Your task to perform on an android device: set default search engine in the chrome app Image 0: 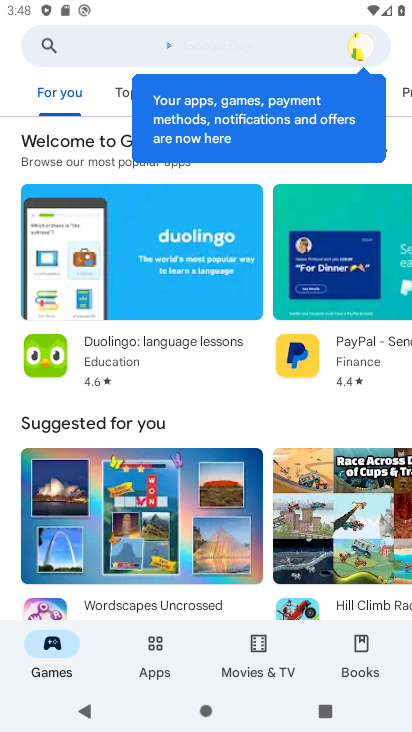
Step 0: press back button
Your task to perform on an android device: set default search engine in the chrome app Image 1: 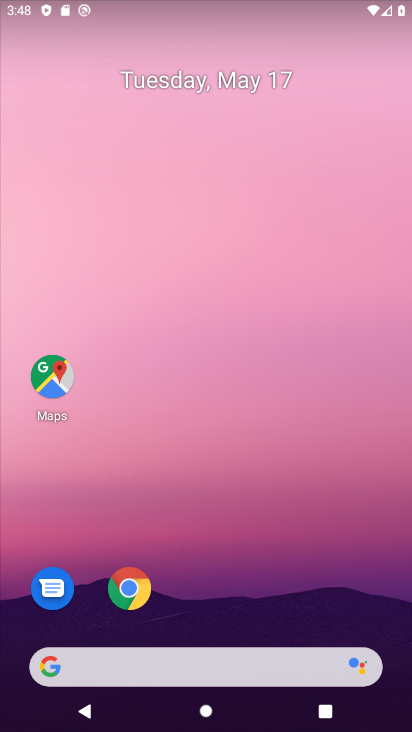
Step 1: click (126, 588)
Your task to perform on an android device: set default search engine in the chrome app Image 2: 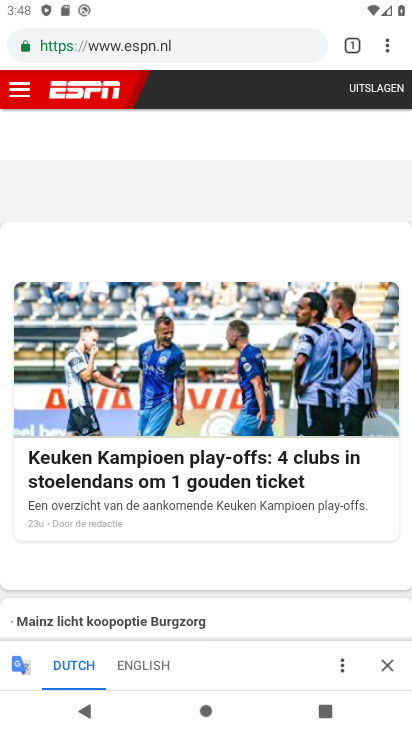
Step 2: click (389, 45)
Your task to perform on an android device: set default search engine in the chrome app Image 3: 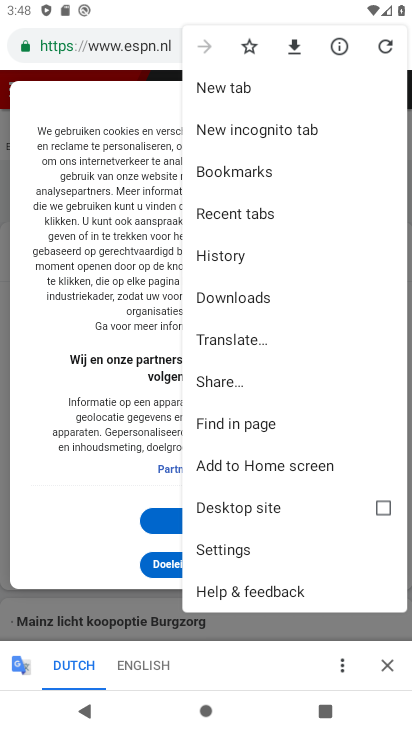
Step 3: click (234, 544)
Your task to perform on an android device: set default search engine in the chrome app Image 4: 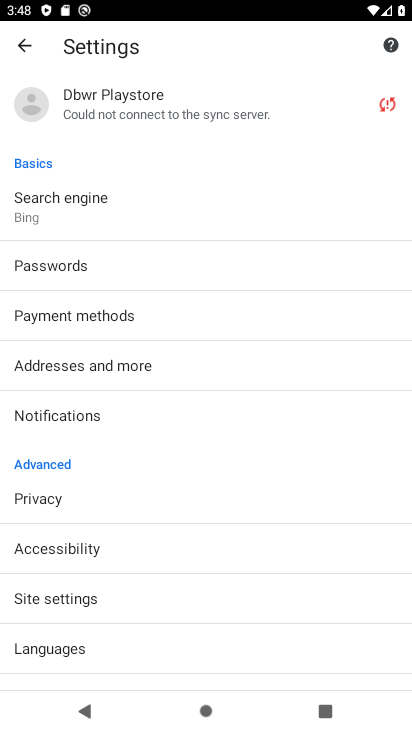
Step 4: click (85, 206)
Your task to perform on an android device: set default search engine in the chrome app Image 5: 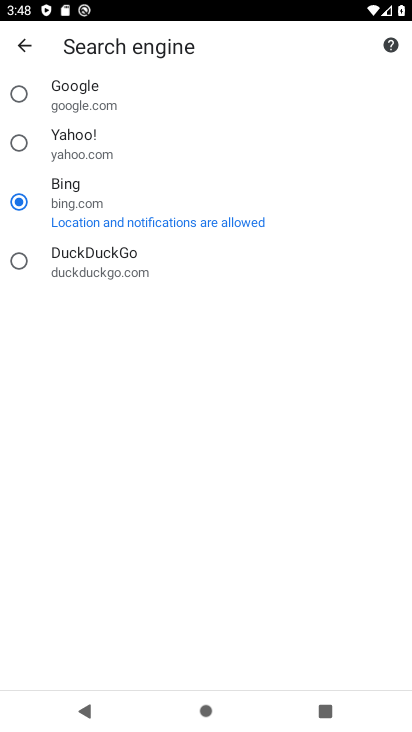
Step 5: click (20, 89)
Your task to perform on an android device: set default search engine in the chrome app Image 6: 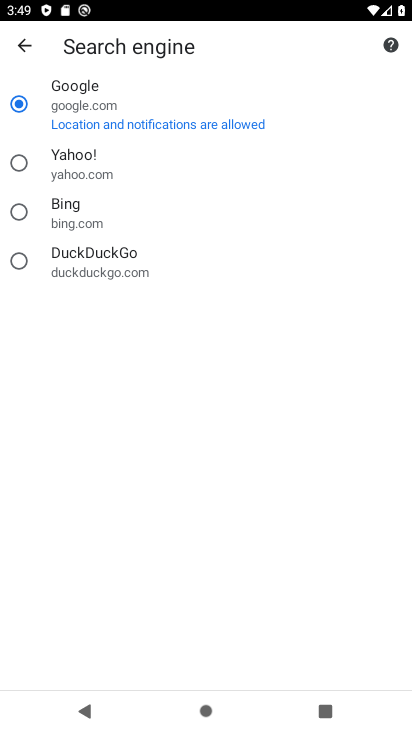
Step 6: task complete